Your task to perform on an android device: Open settings Image 0: 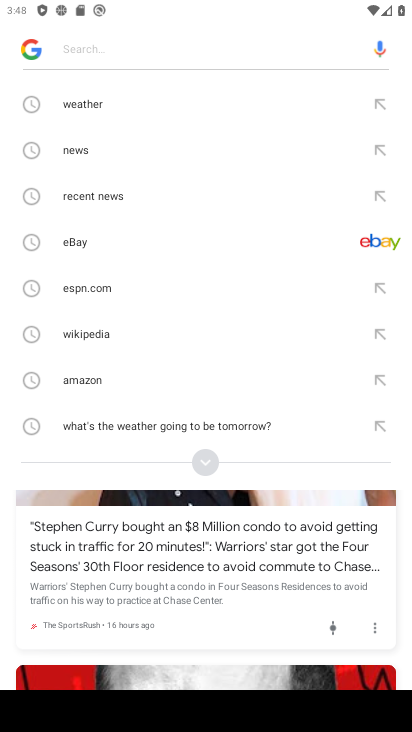
Step 0: press home button
Your task to perform on an android device: Open settings Image 1: 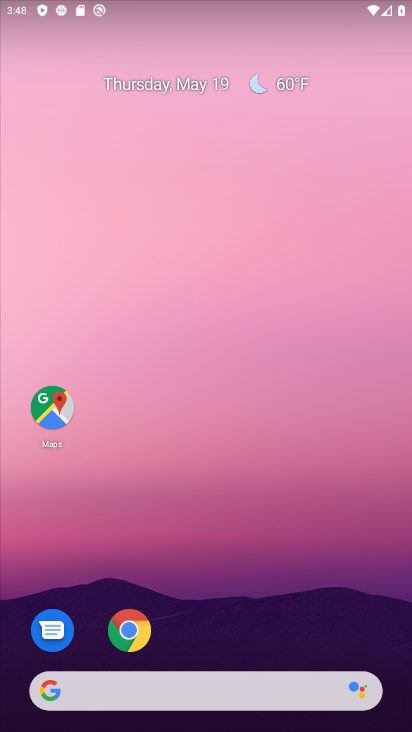
Step 1: drag from (200, 720) to (204, 315)
Your task to perform on an android device: Open settings Image 2: 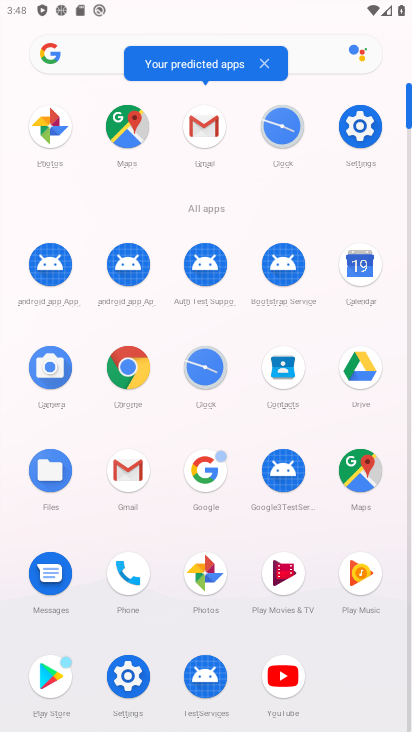
Step 2: click (126, 670)
Your task to perform on an android device: Open settings Image 3: 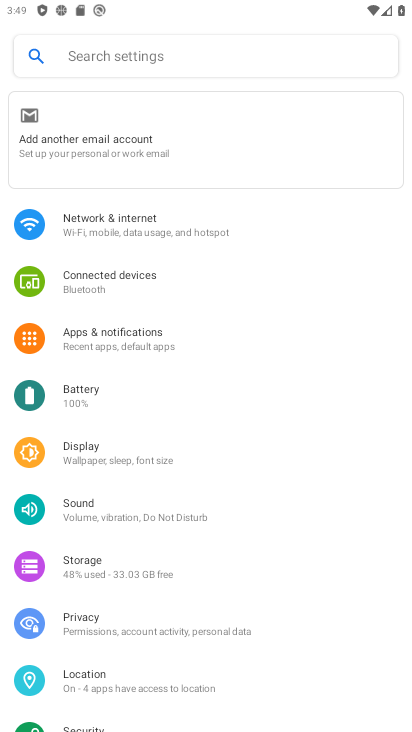
Step 3: task complete